Your task to perform on an android device: Open Google Chrome Image 0: 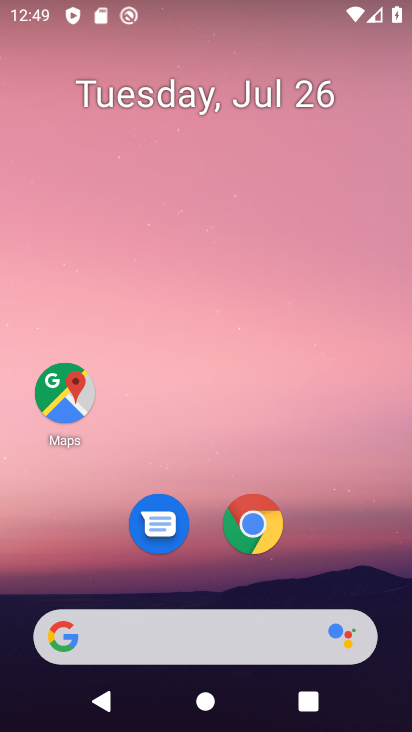
Step 0: click (263, 522)
Your task to perform on an android device: Open Google Chrome Image 1: 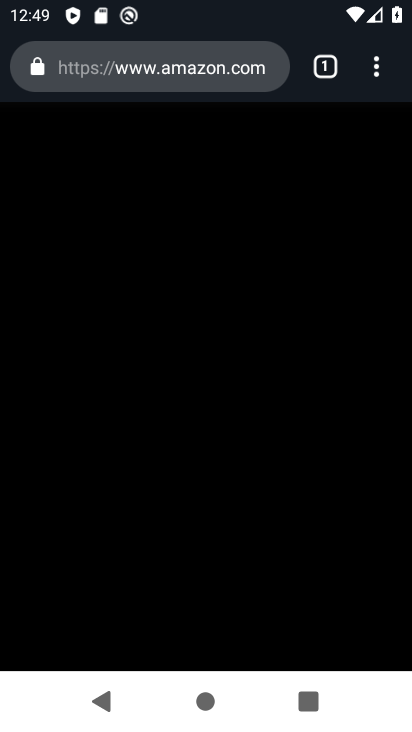
Step 1: click (376, 74)
Your task to perform on an android device: Open Google Chrome Image 2: 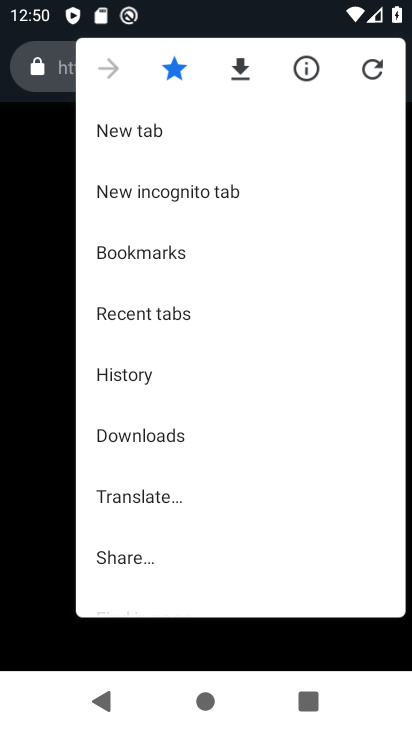
Step 2: click (367, 62)
Your task to perform on an android device: Open Google Chrome Image 3: 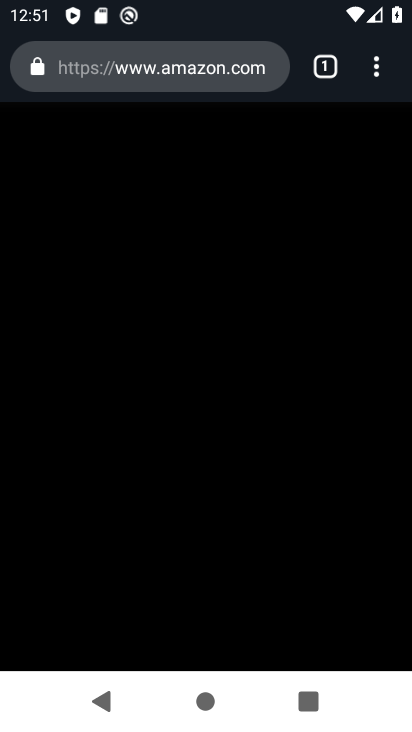
Step 3: press home button
Your task to perform on an android device: Open Google Chrome Image 4: 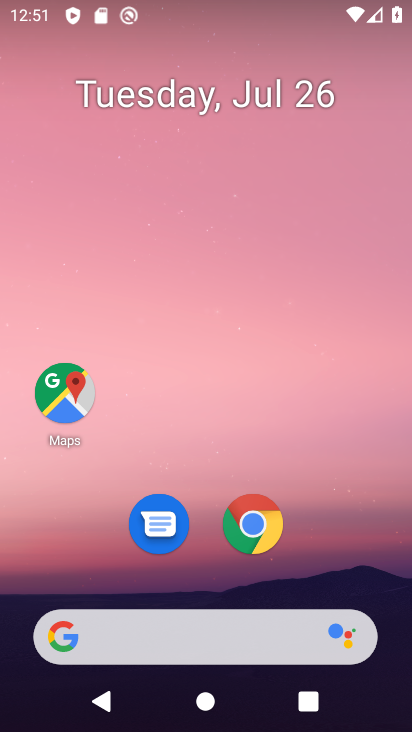
Step 4: click (262, 524)
Your task to perform on an android device: Open Google Chrome Image 5: 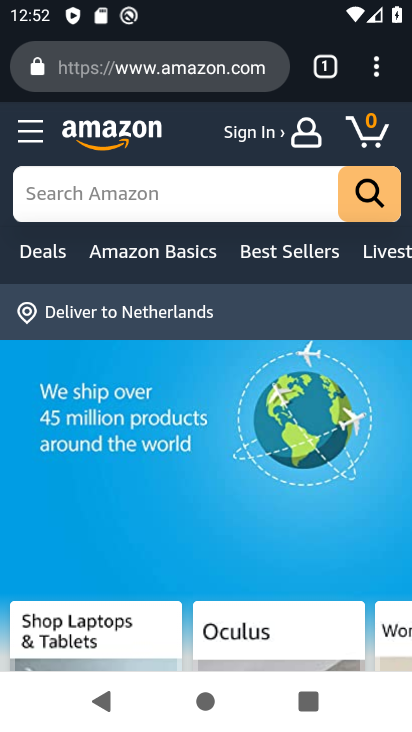
Step 5: task complete